Your task to perform on an android device: show emergency info Image 0: 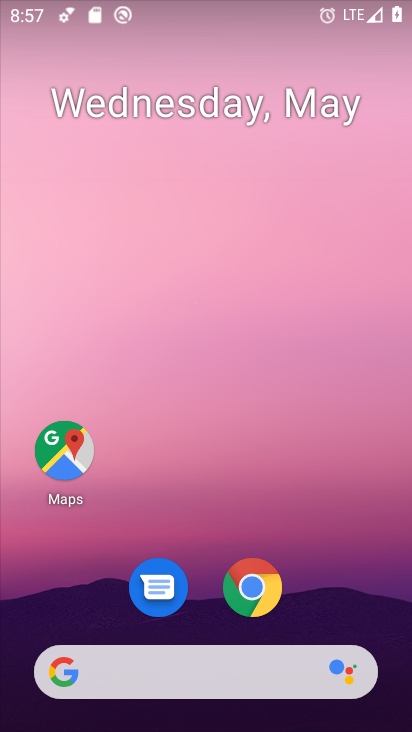
Step 0: drag from (205, 623) to (270, 55)
Your task to perform on an android device: show emergency info Image 1: 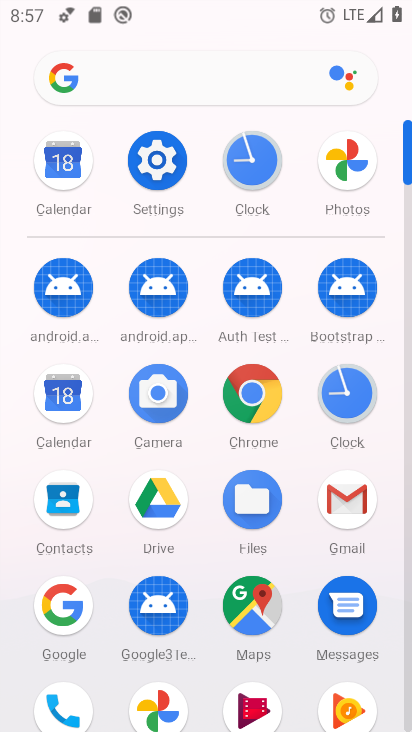
Step 1: click (170, 148)
Your task to perform on an android device: show emergency info Image 2: 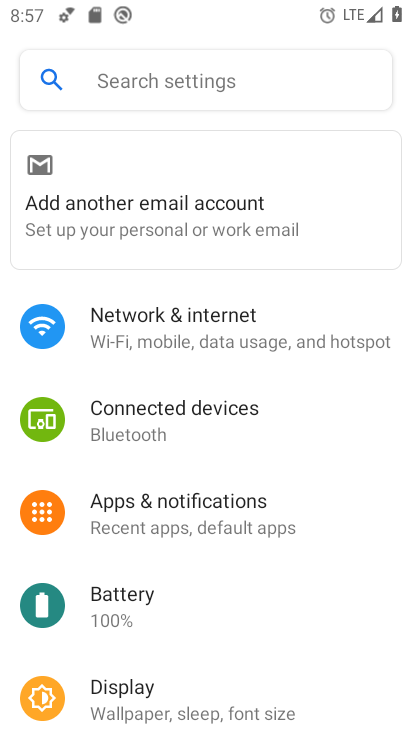
Step 2: drag from (134, 557) to (208, 141)
Your task to perform on an android device: show emergency info Image 3: 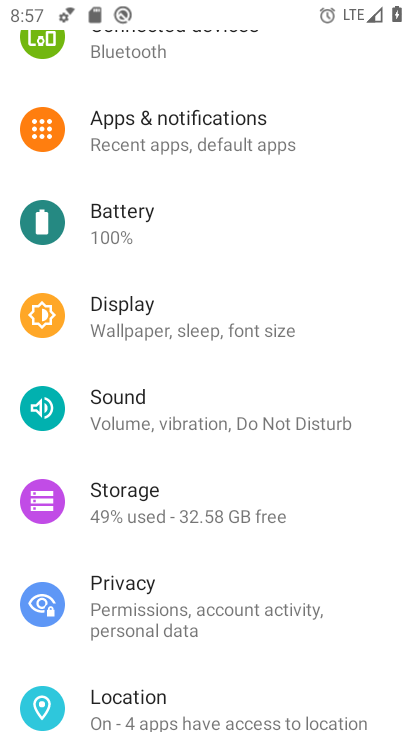
Step 3: drag from (216, 567) to (268, 95)
Your task to perform on an android device: show emergency info Image 4: 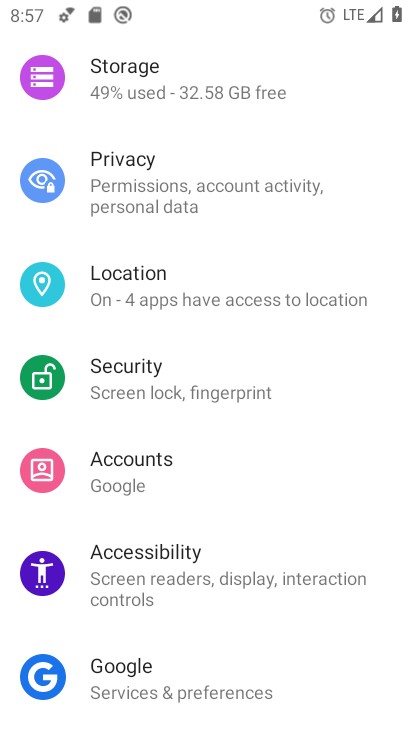
Step 4: drag from (188, 599) to (237, 210)
Your task to perform on an android device: show emergency info Image 5: 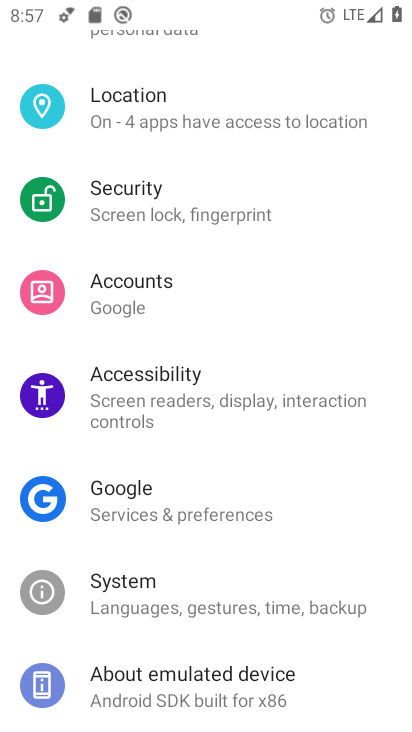
Step 5: drag from (176, 619) to (262, 158)
Your task to perform on an android device: show emergency info Image 6: 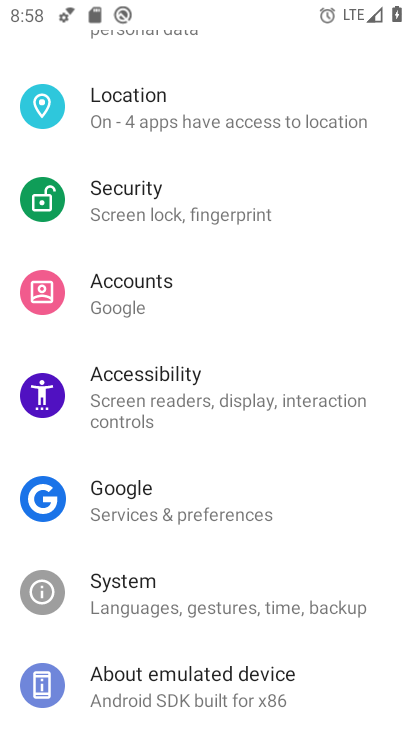
Step 6: click (146, 679)
Your task to perform on an android device: show emergency info Image 7: 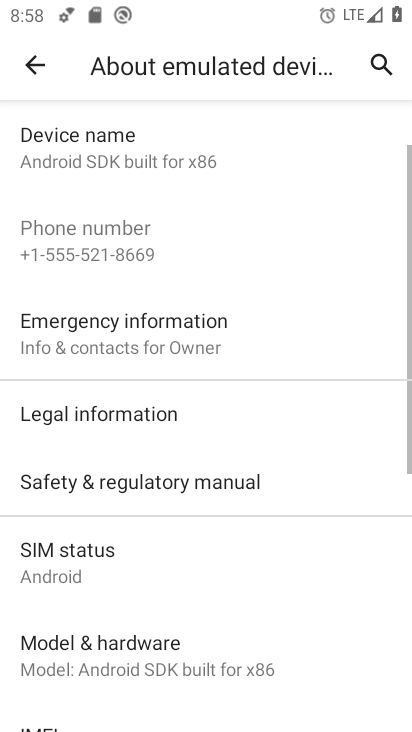
Step 7: click (149, 339)
Your task to perform on an android device: show emergency info Image 8: 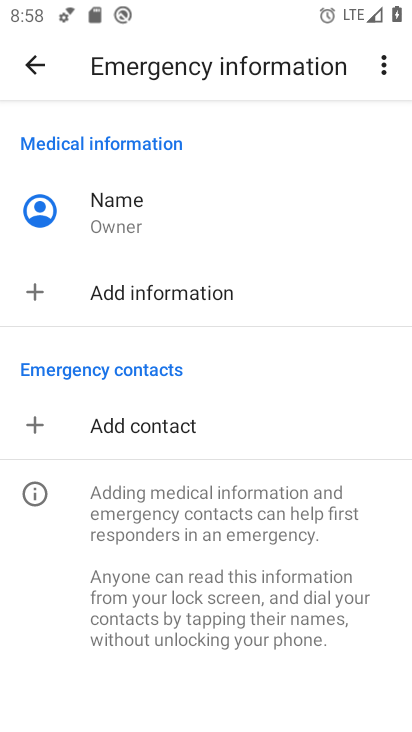
Step 8: task complete